Your task to perform on an android device: turn off smart reply in the gmail app Image 0: 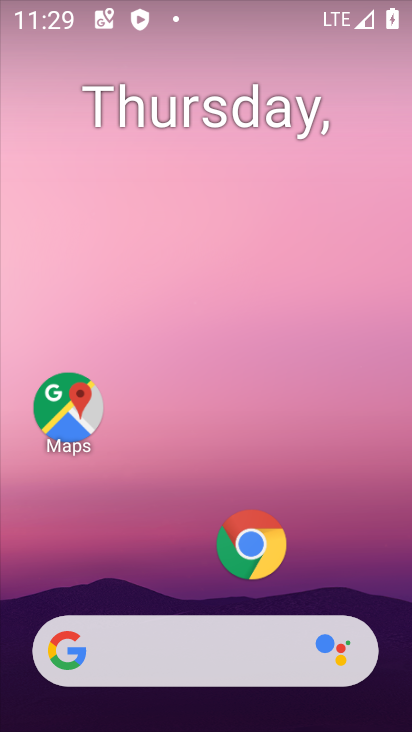
Step 0: drag from (186, 624) to (350, 0)
Your task to perform on an android device: turn off smart reply in the gmail app Image 1: 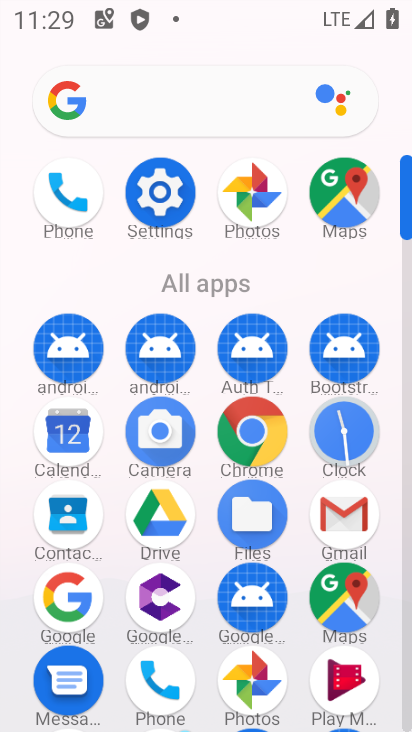
Step 1: click (352, 533)
Your task to perform on an android device: turn off smart reply in the gmail app Image 2: 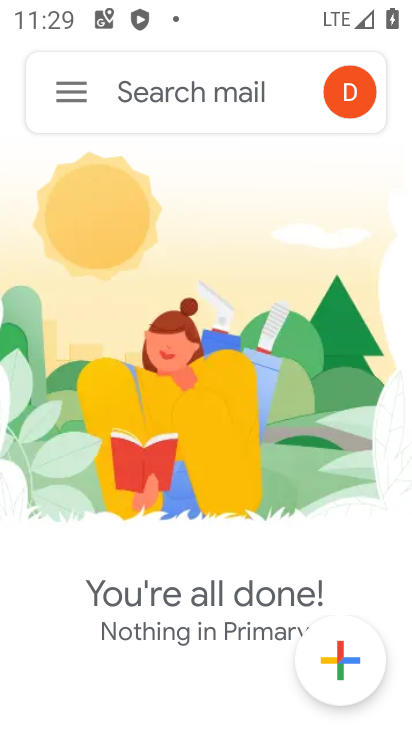
Step 2: click (67, 91)
Your task to perform on an android device: turn off smart reply in the gmail app Image 3: 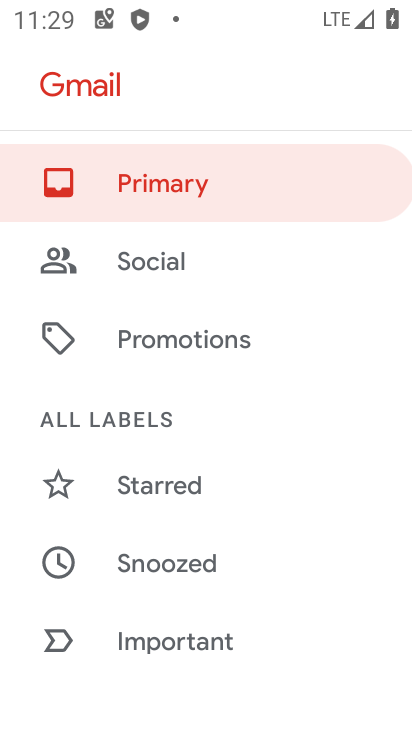
Step 3: drag from (170, 606) to (155, 37)
Your task to perform on an android device: turn off smart reply in the gmail app Image 4: 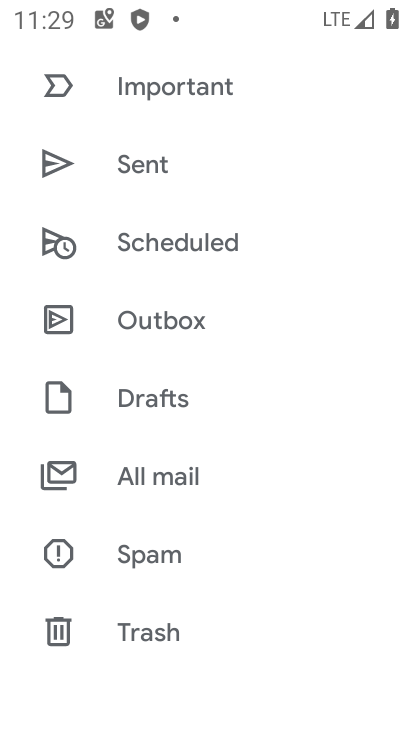
Step 4: drag from (167, 592) to (169, 72)
Your task to perform on an android device: turn off smart reply in the gmail app Image 5: 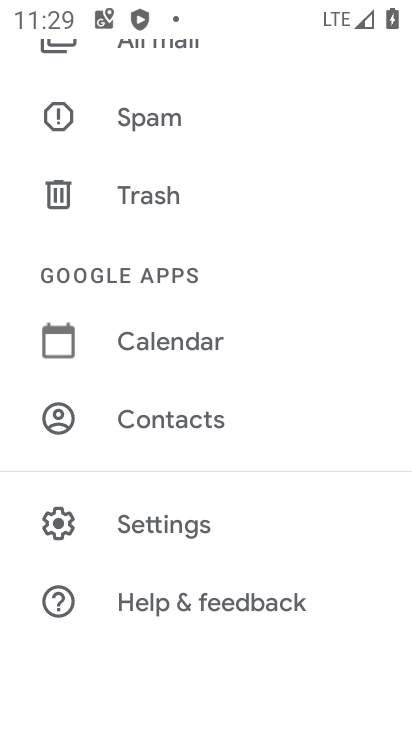
Step 5: click (205, 512)
Your task to perform on an android device: turn off smart reply in the gmail app Image 6: 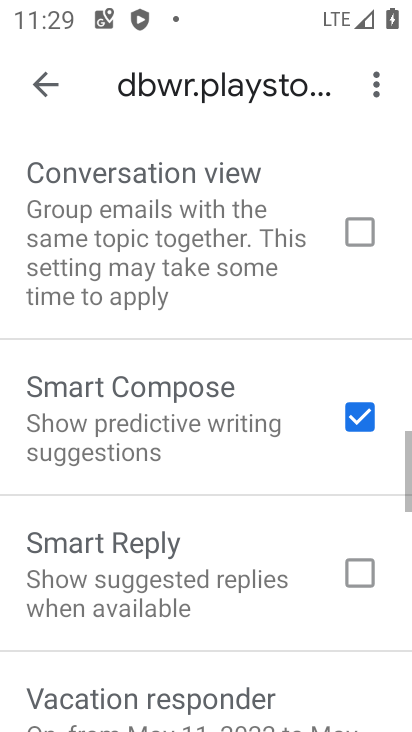
Step 6: task complete